Your task to perform on an android device: Show me popular games on the Play Store Image 0: 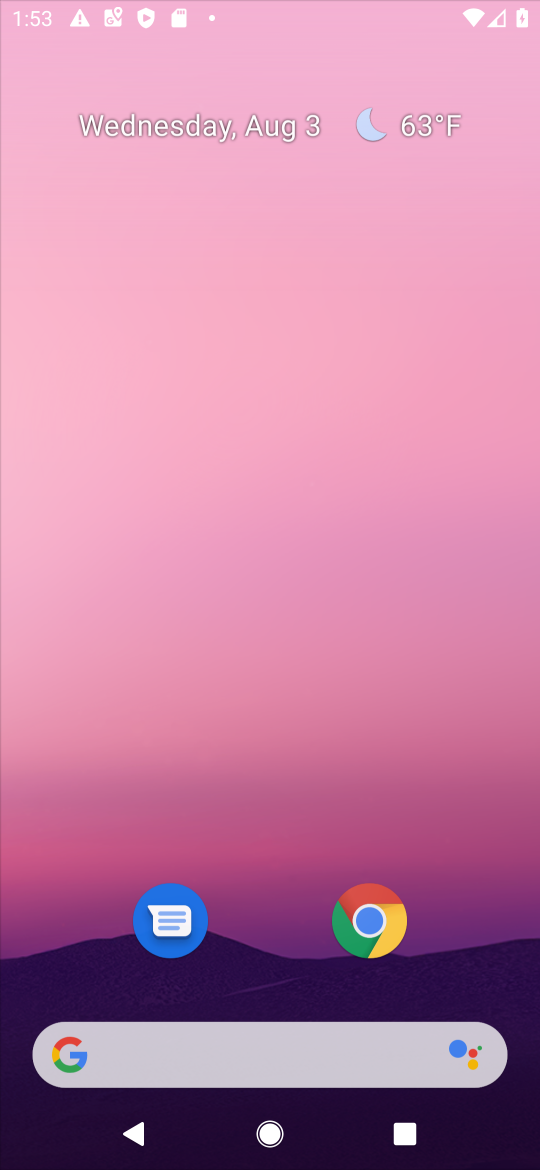
Step 0: drag from (277, 953) to (279, 157)
Your task to perform on an android device: Show me popular games on the Play Store Image 1: 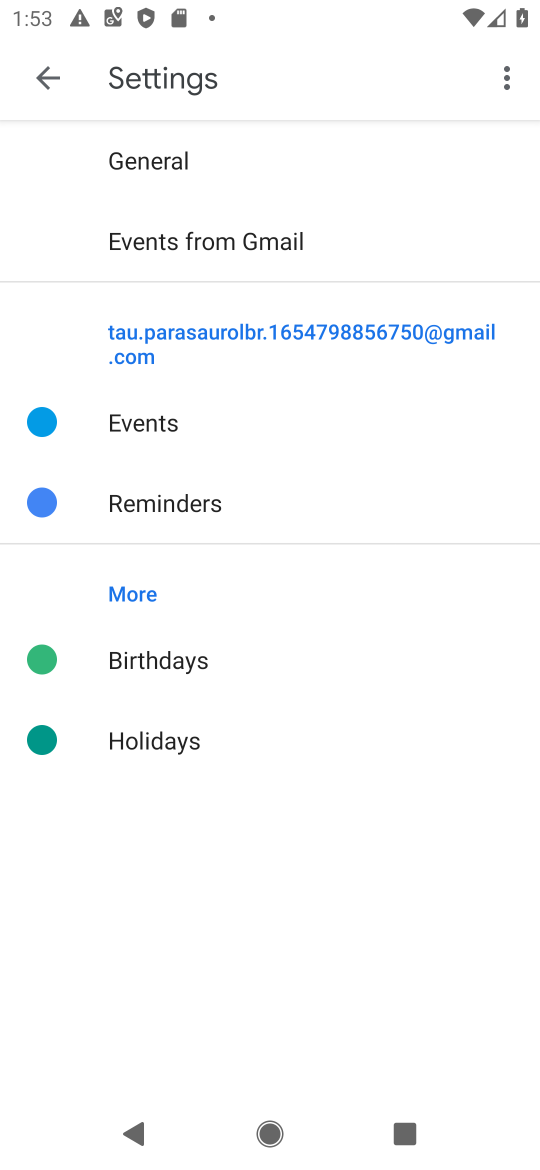
Step 1: press home button
Your task to perform on an android device: Show me popular games on the Play Store Image 2: 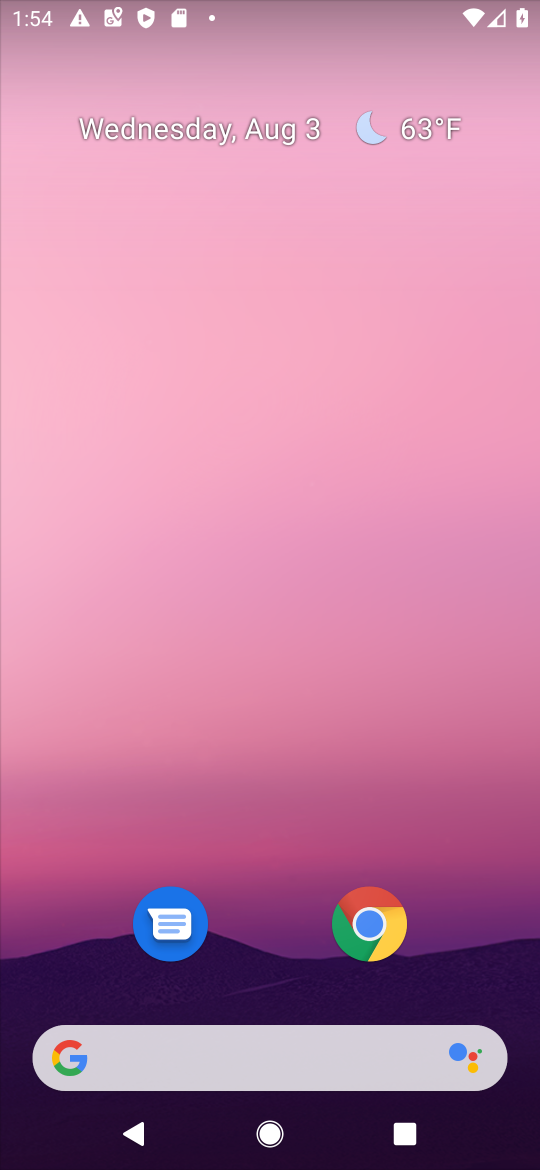
Step 2: drag from (291, 999) to (283, 238)
Your task to perform on an android device: Show me popular games on the Play Store Image 3: 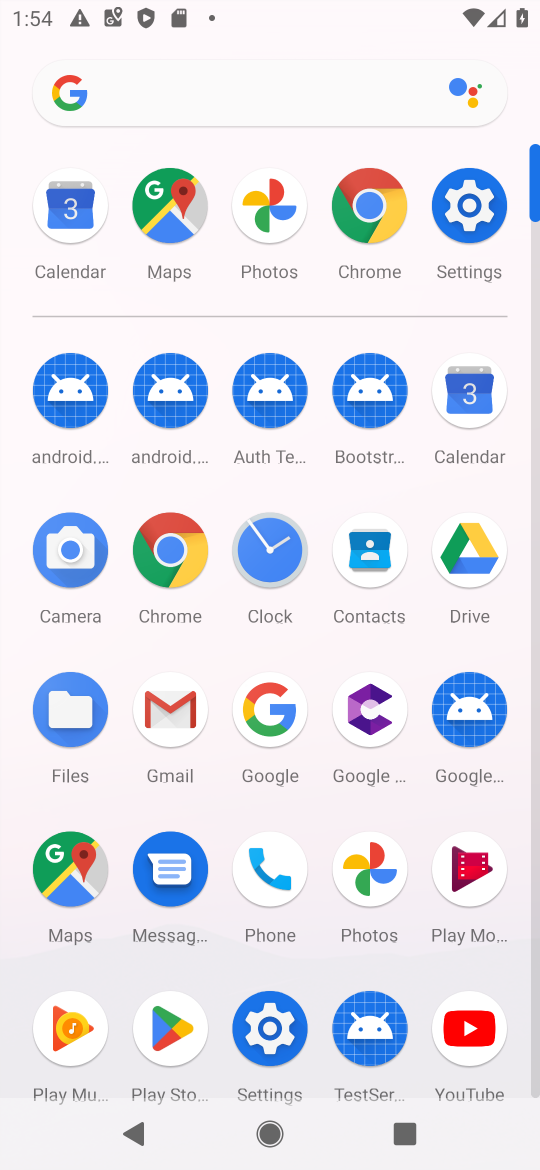
Step 3: click (161, 1016)
Your task to perform on an android device: Show me popular games on the Play Store Image 4: 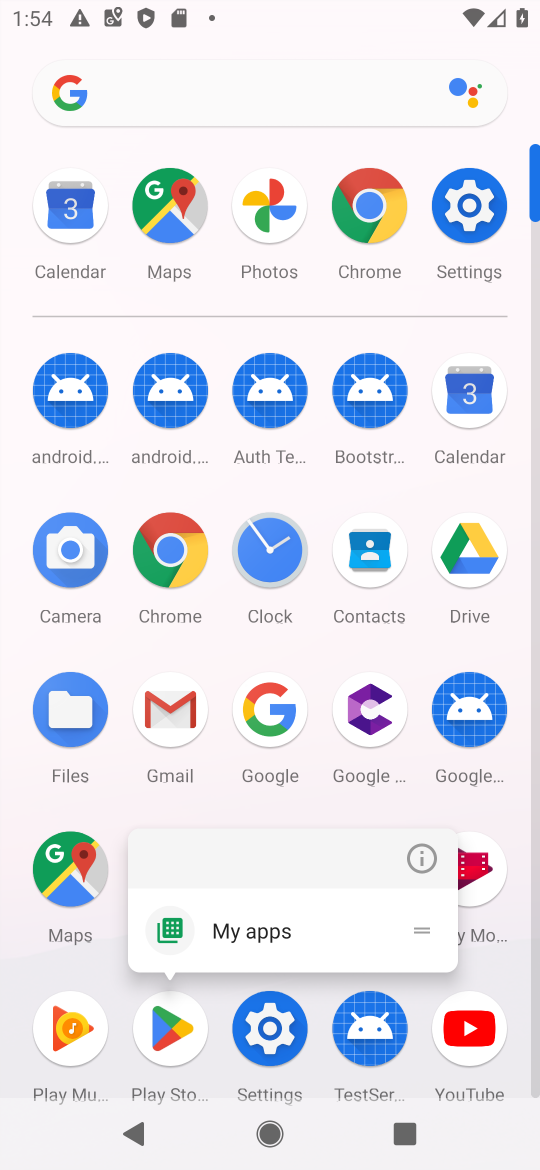
Step 4: click (156, 1021)
Your task to perform on an android device: Show me popular games on the Play Store Image 5: 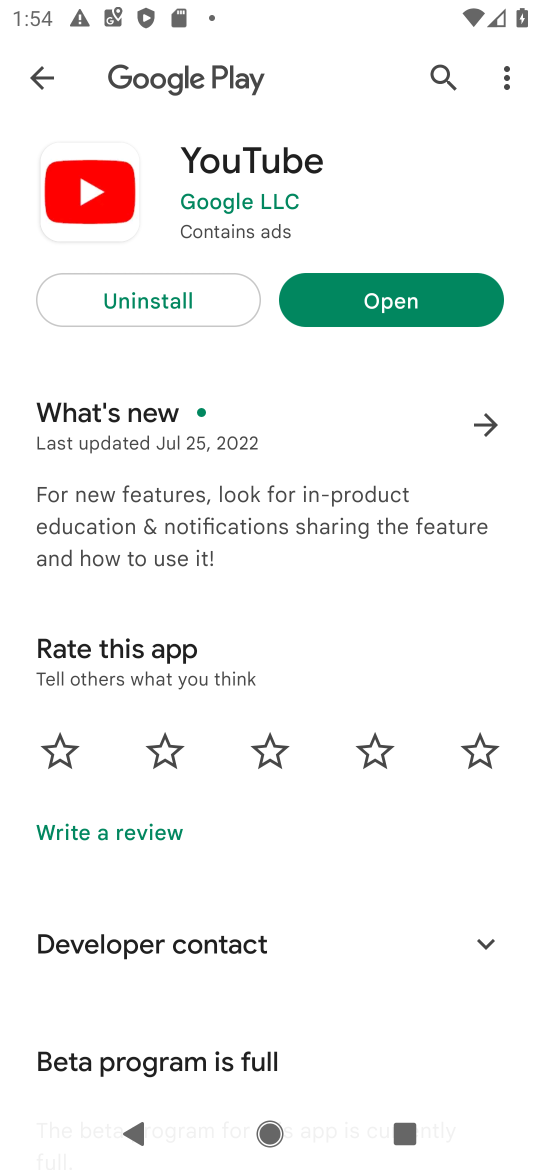
Step 5: click (45, 80)
Your task to perform on an android device: Show me popular games on the Play Store Image 6: 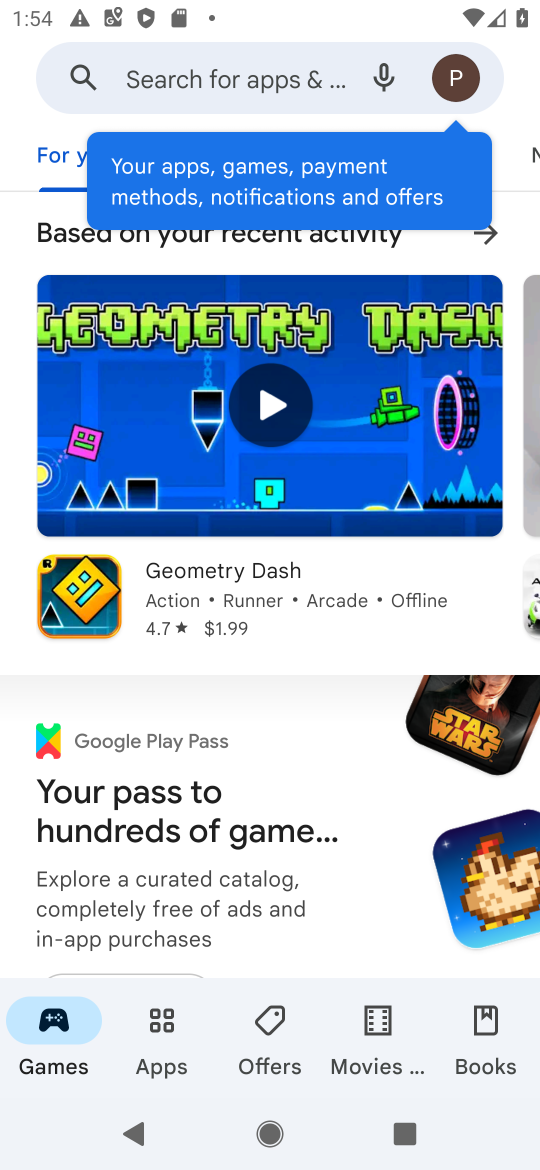
Step 6: drag from (309, 945) to (334, 419)
Your task to perform on an android device: Show me popular games on the Play Store Image 7: 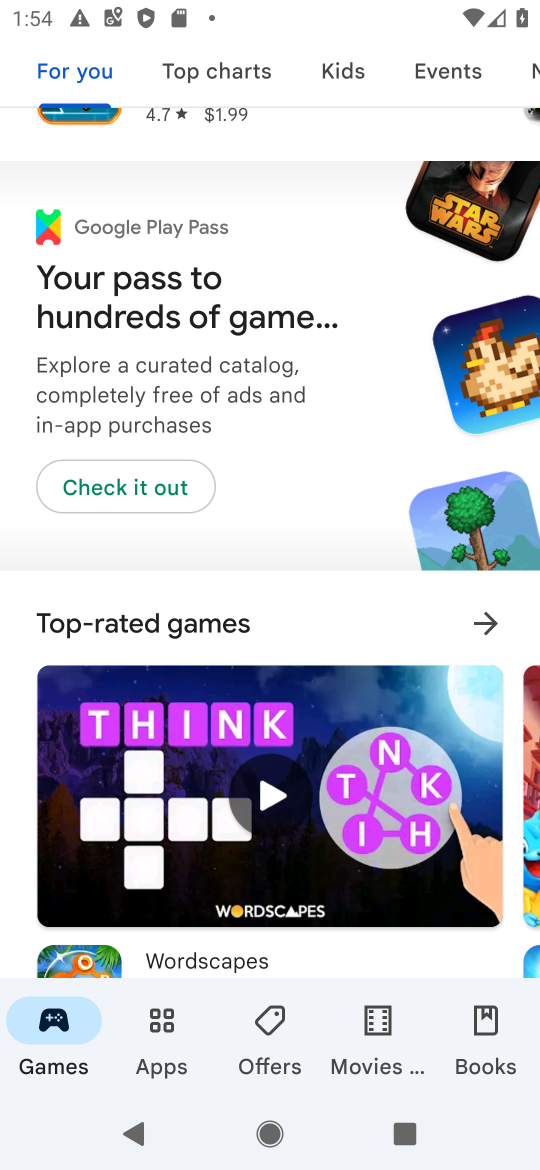
Step 7: drag from (272, 950) to (282, 223)
Your task to perform on an android device: Show me popular games on the Play Store Image 8: 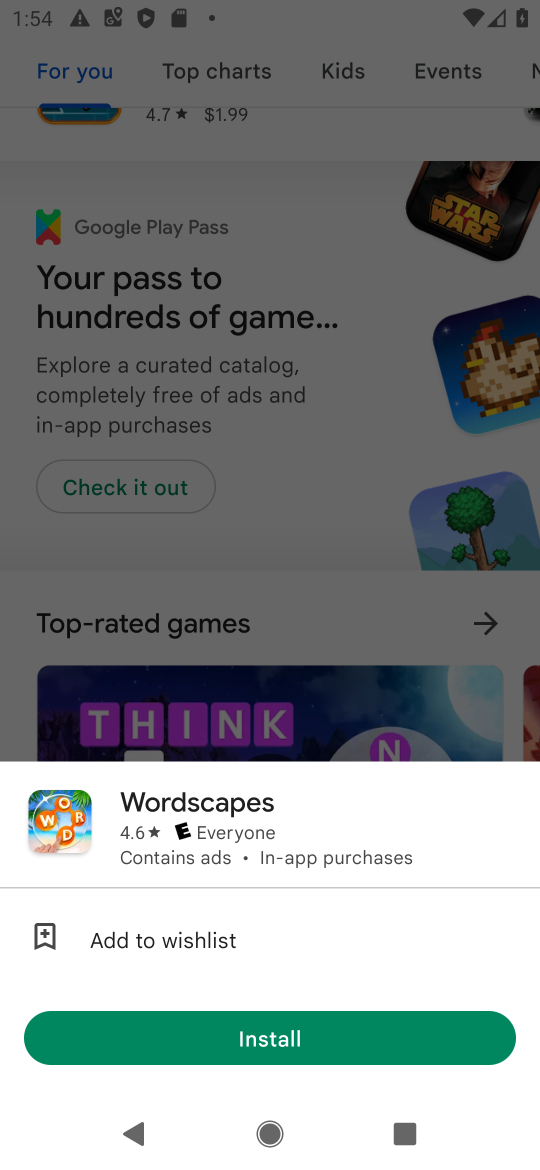
Step 8: click (209, 613)
Your task to perform on an android device: Show me popular games on the Play Store Image 9: 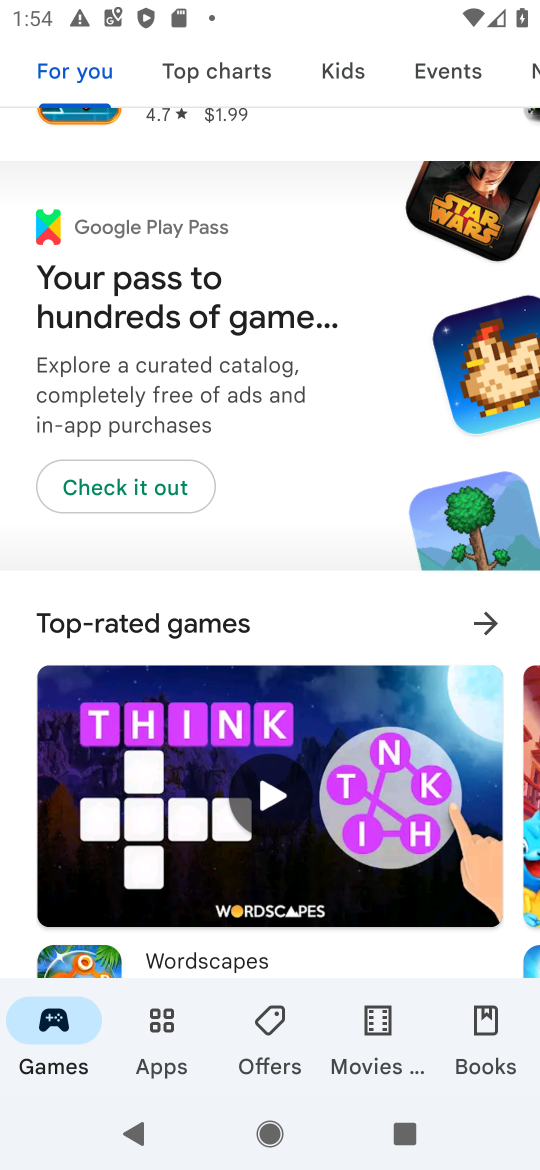
Step 9: task complete